Your task to perform on an android device: turn smart compose on in the gmail app Image 0: 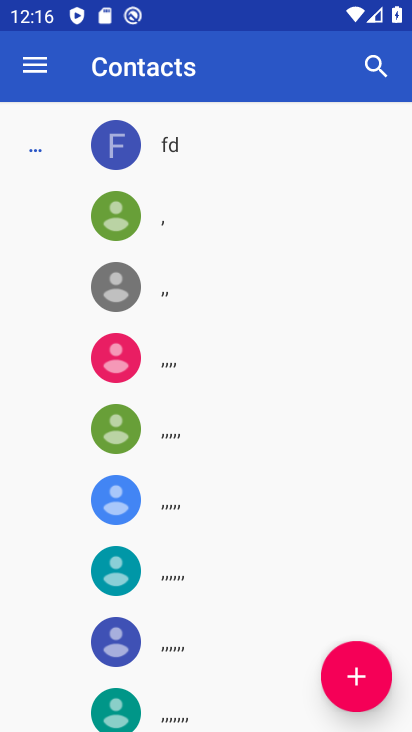
Step 0: press home button
Your task to perform on an android device: turn smart compose on in the gmail app Image 1: 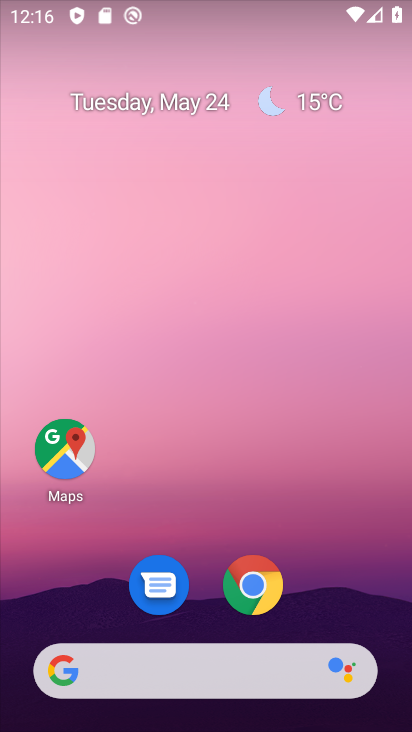
Step 1: drag from (222, 510) to (224, 47)
Your task to perform on an android device: turn smart compose on in the gmail app Image 2: 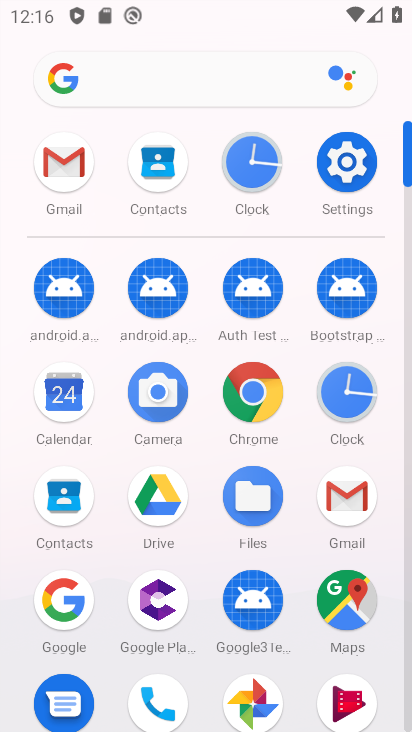
Step 2: click (75, 164)
Your task to perform on an android device: turn smart compose on in the gmail app Image 3: 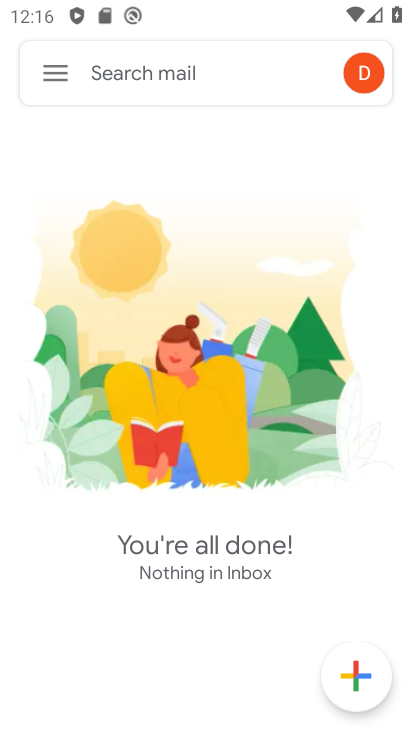
Step 3: click (54, 66)
Your task to perform on an android device: turn smart compose on in the gmail app Image 4: 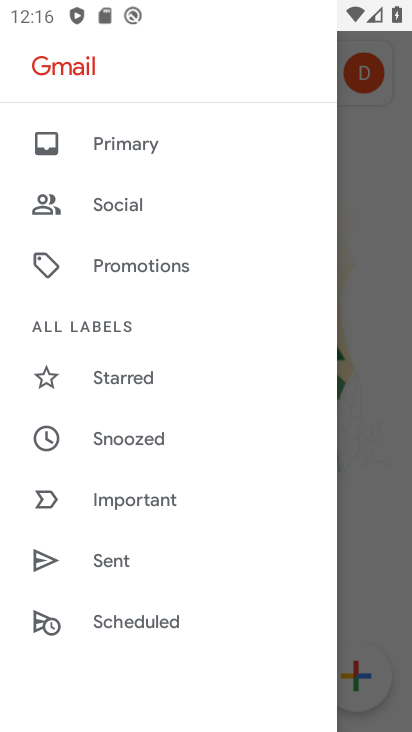
Step 4: drag from (169, 564) to (218, 114)
Your task to perform on an android device: turn smart compose on in the gmail app Image 5: 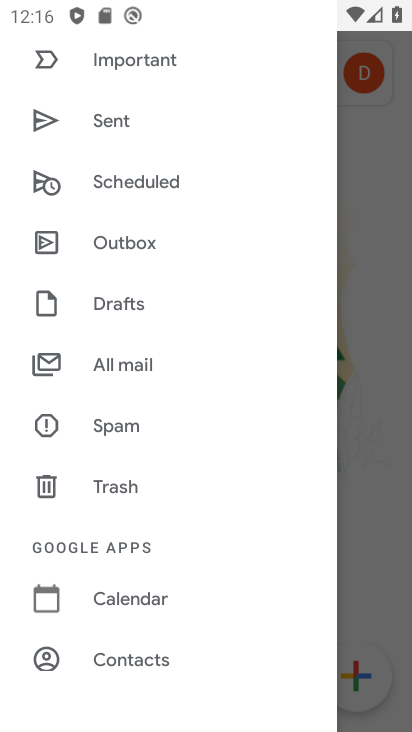
Step 5: drag from (181, 472) to (192, 207)
Your task to perform on an android device: turn smart compose on in the gmail app Image 6: 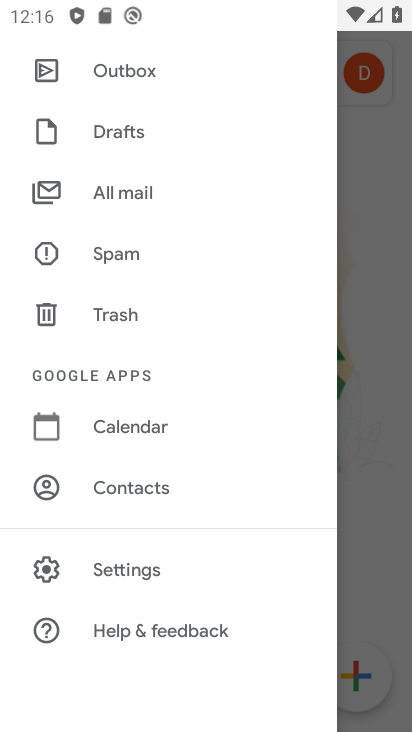
Step 6: click (132, 565)
Your task to perform on an android device: turn smart compose on in the gmail app Image 7: 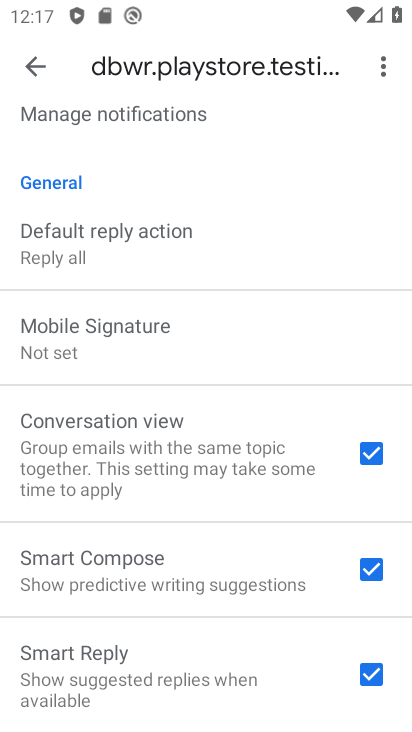
Step 7: task complete